Your task to perform on an android device: set an alarm Image 0: 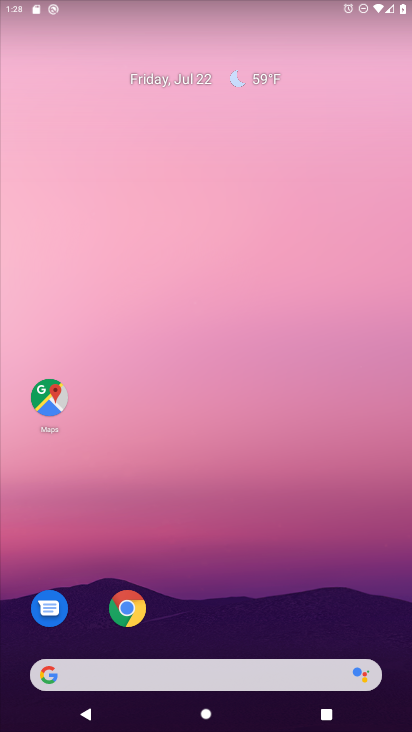
Step 0: drag from (380, 625) to (159, 5)
Your task to perform on an android device: set an alarm Image 1: 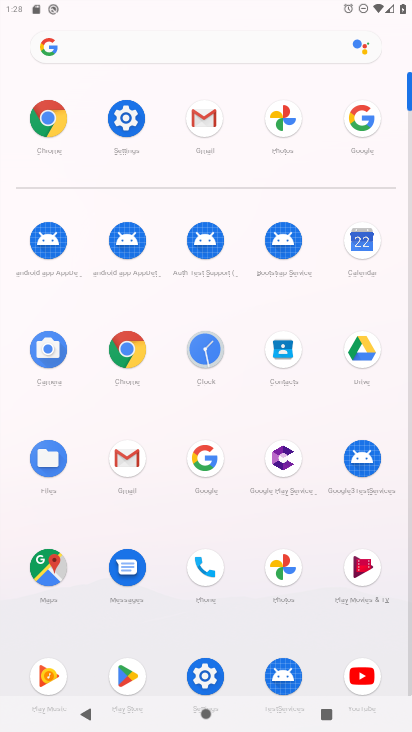
Step 1: click (203, 337)
Your task to perform on an android device: set an alarm Image 2: 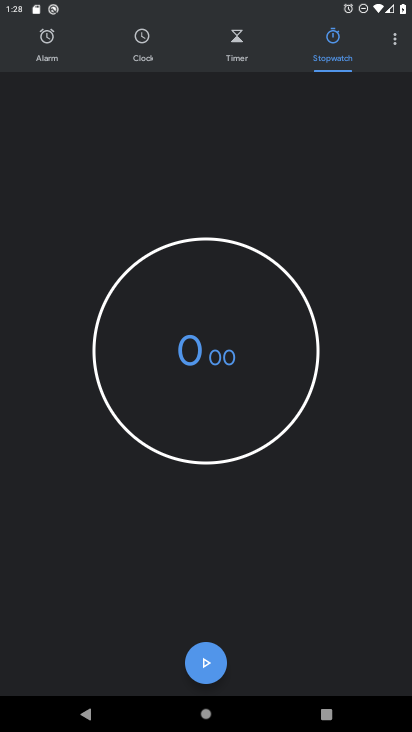
Step 2: click (57, 40)
Your task to perform on an android device: set an alarm Image 3: 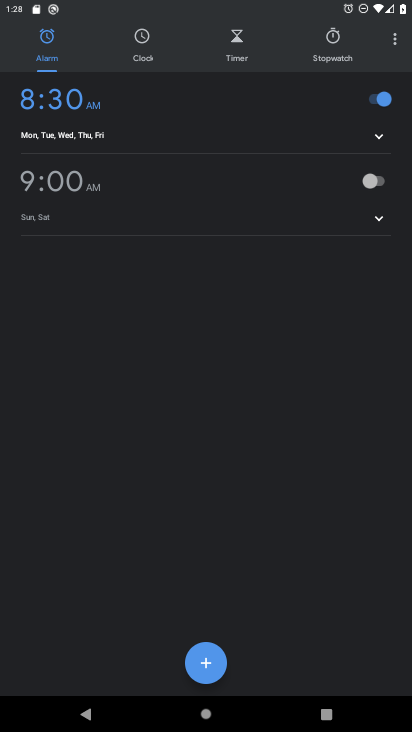
Step 3: click (362, 175)
Your task to perform on an android device: set an alarm Image 4: 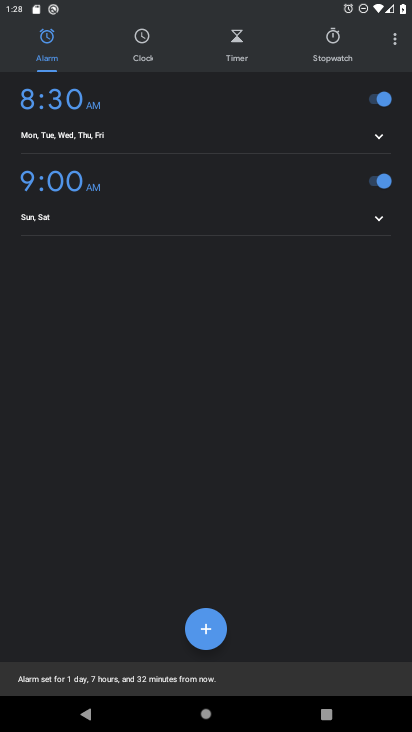
Step 4: task complete